Your task to perform on an android device: What's on my calendar today? Image 0: 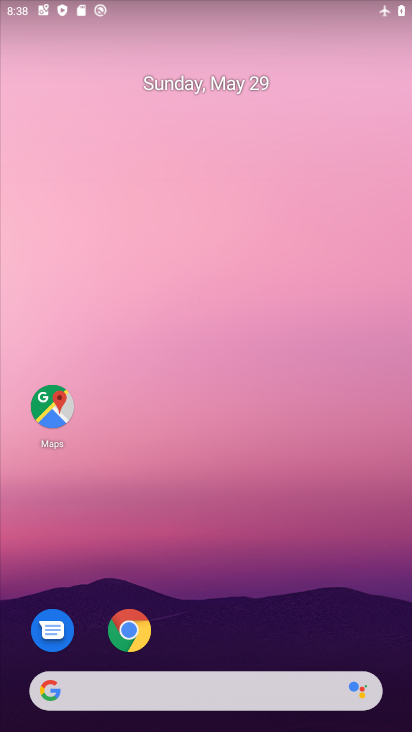
Step 0: drag from (201, 667) to (155, 68)
Your task to perform on an android device: What's on my calendar today? Image 1: 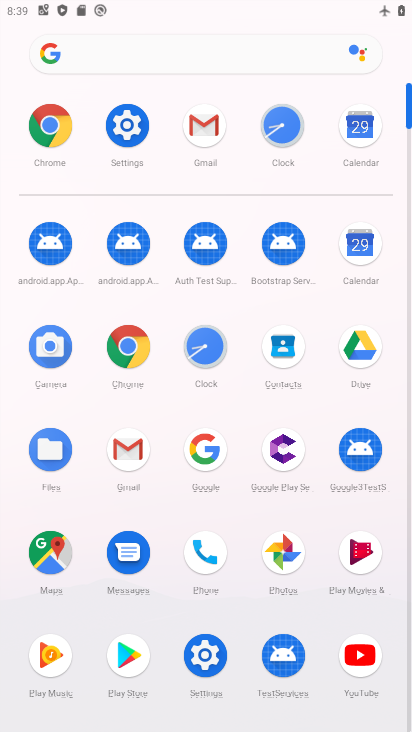
Step 1: click (352, 253)
Your task to perform on an android device: What's on my calendar today? Image 2: 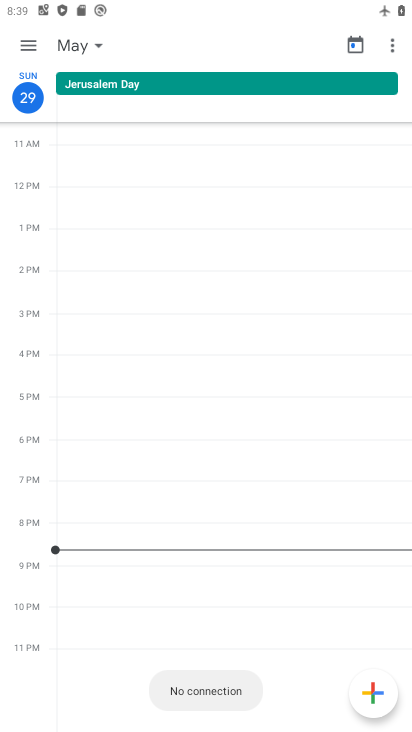
Step 2: click (27, 76)
Your task to perform on an android device: What's on my calendar today? Image 3: 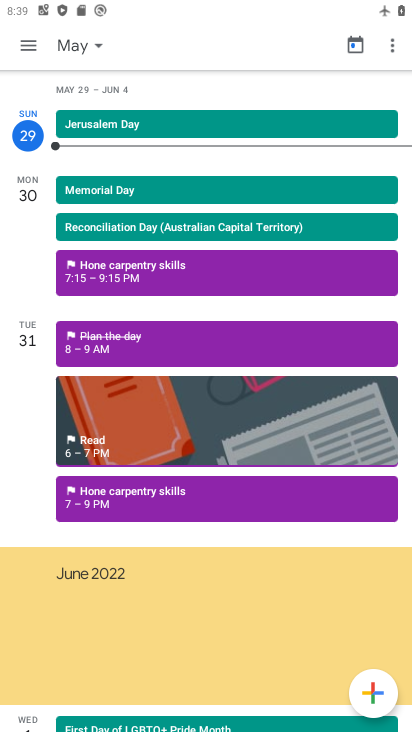
Step 3: click (27, 119)
Your task to perform on an android device: What's on my calendar today? Image 4: 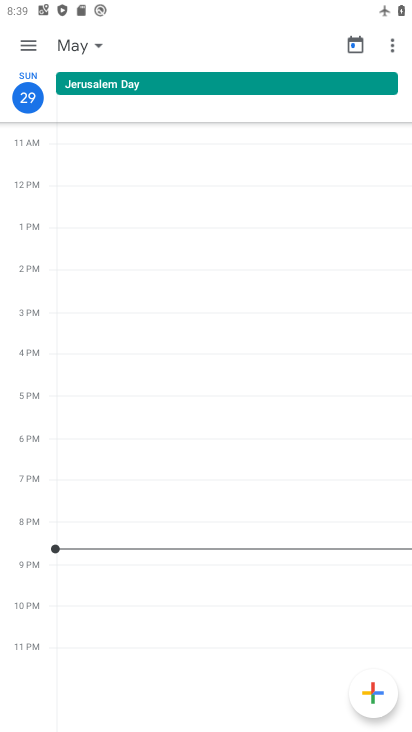
Step 4: task complete